Your task to perform on an android device: Do I have any events this weekend? Image 0: 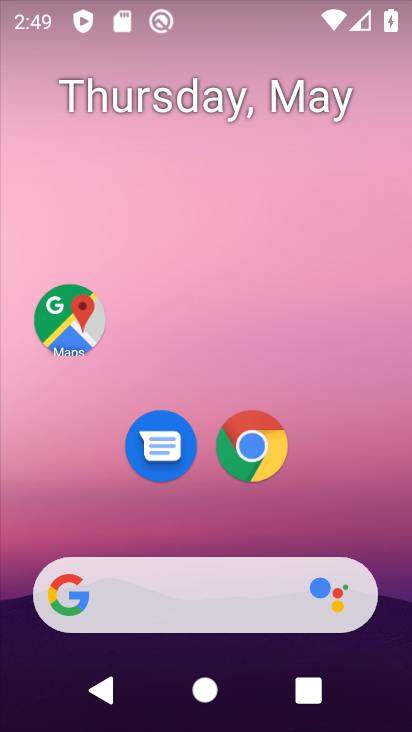
Step 0: drag from (326, 541) to (276, 41)
Your task to perform on an android device: Do I have any events this weekend? Image 1: 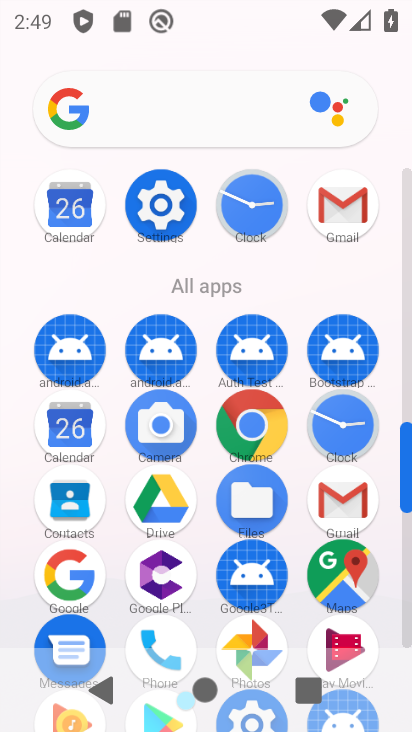
Step 1: click (70, 217)
Your task to perform on an android device: Do I have any events this weekend? Image 2: 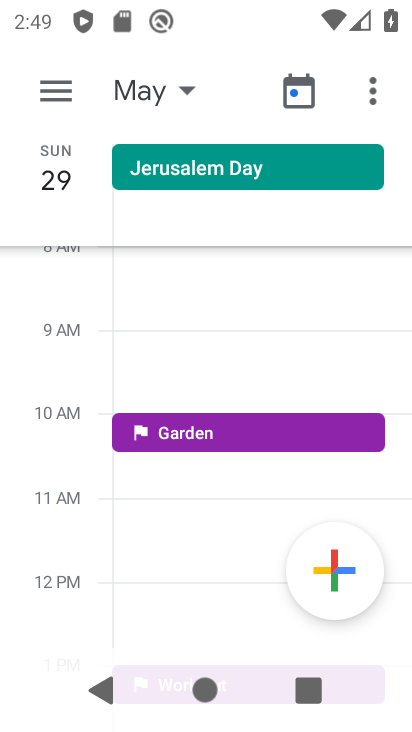
Step 2: click (65, 94)
Your task to perform on an android device: Do I have any events this weekend? Image 3: 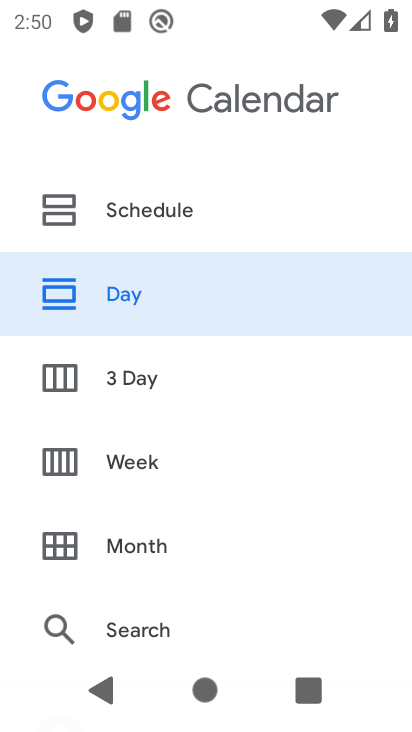
Step 3: click (109, 301)
Your task to perform on an android device: Do I have any events this weekend? Image 4: 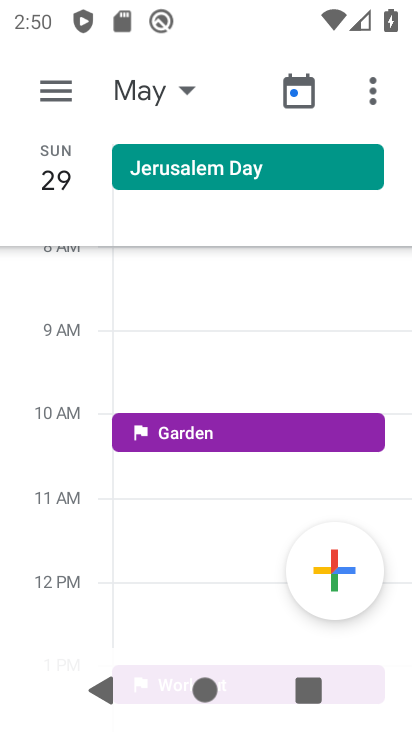
Step 4: click (188, 88)
Your task to perform on an android device: Do I have any events this weekend? Image 5: 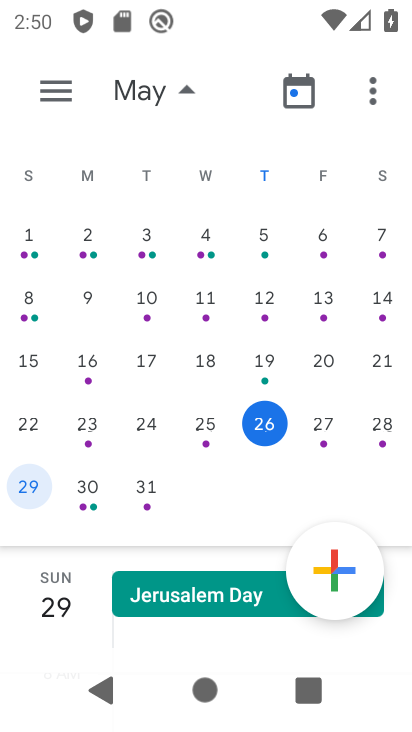
Step 5: click (386, 430)
Your task to perform on an android device: Do I have any events this weekend? Image 6: 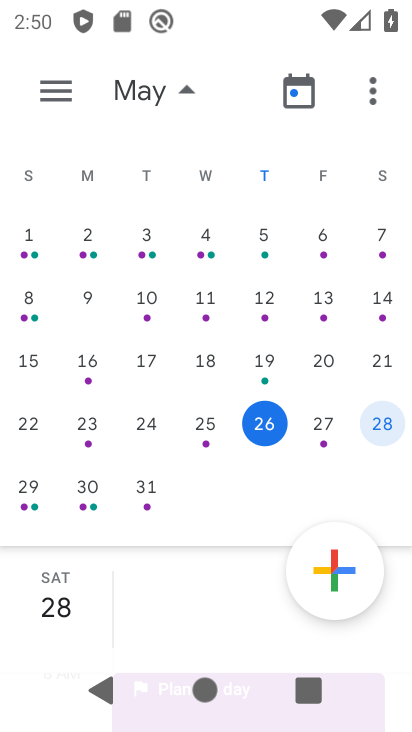
Step 6: task complete